Your task to perform on an android device: Go to notification settings Image 0: 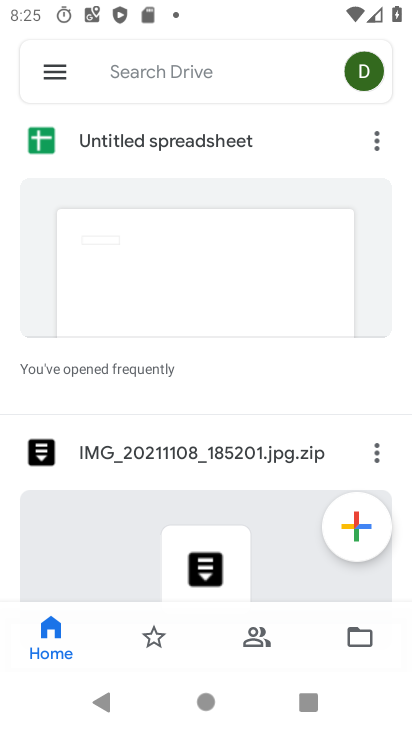
Step 0: press home button
Your task to perform on an android device: Go to notification settings Image 1: 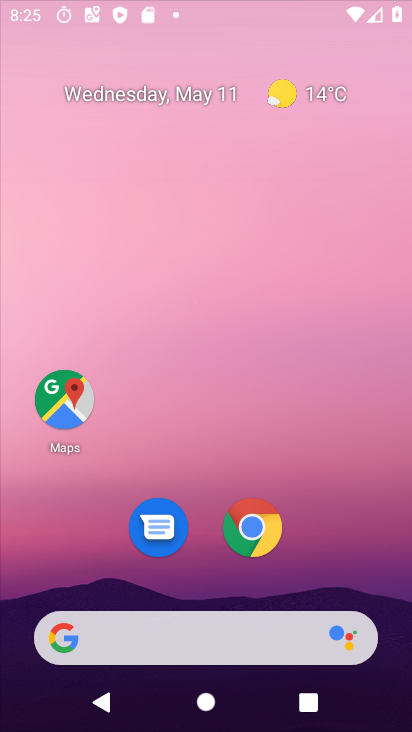
Step 1: drag from (222, 628) to (229, 313)
Your task to perform on an android device: Go to notification settings Image 2: 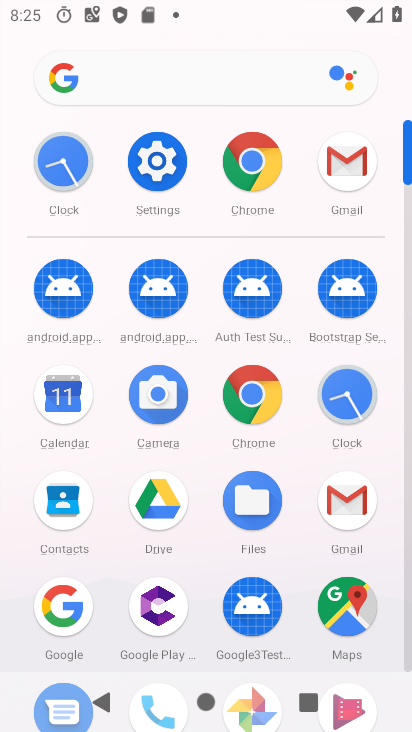
Step 2: click (171, 183)
Your task to perform on an android device: Go to notification settings Image 3: 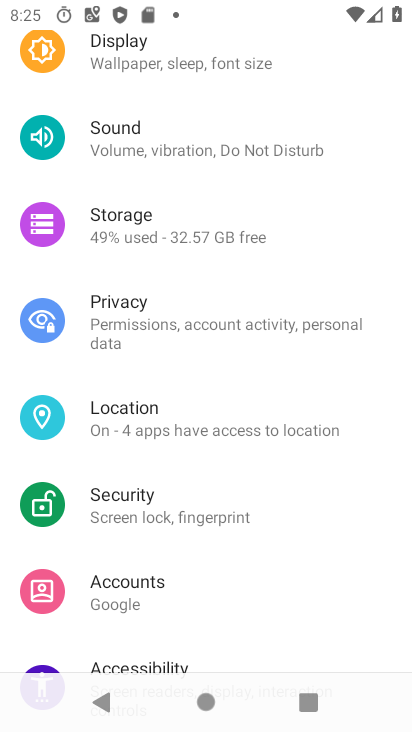
Step 3: drag from (162, 504) to (161, 345)
Your task to perform on an android device: Go to notification settings Image 4: 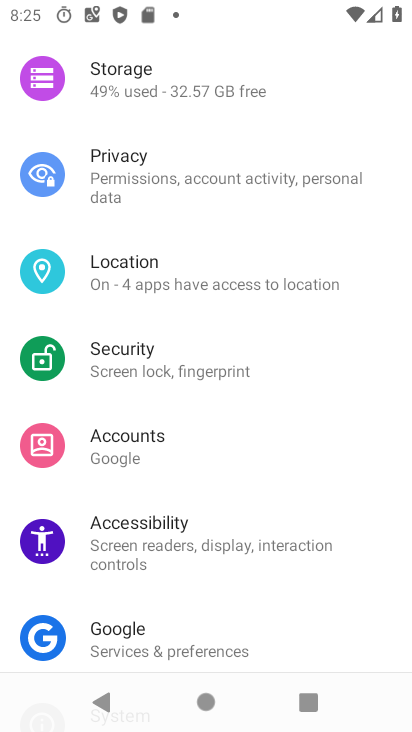
Step 4: drag from (197, 205) to (189, 627)
Your task to perform on an android device: Go to notification settings Image 5: 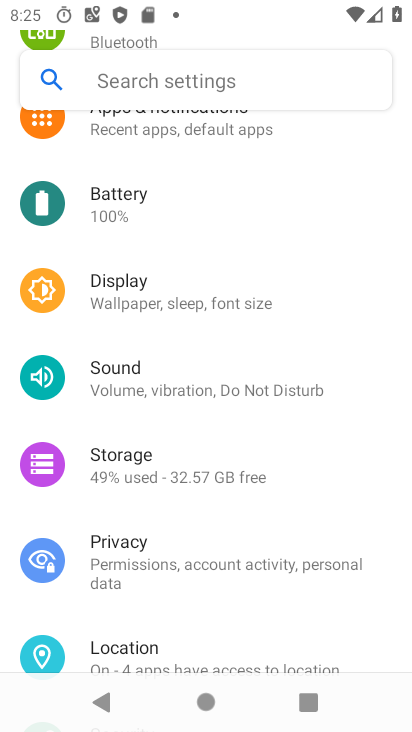
Step 5: drag from (195, 278) to (195, 662)
Your task to perform on an android device: Go to notification settings Image 6: 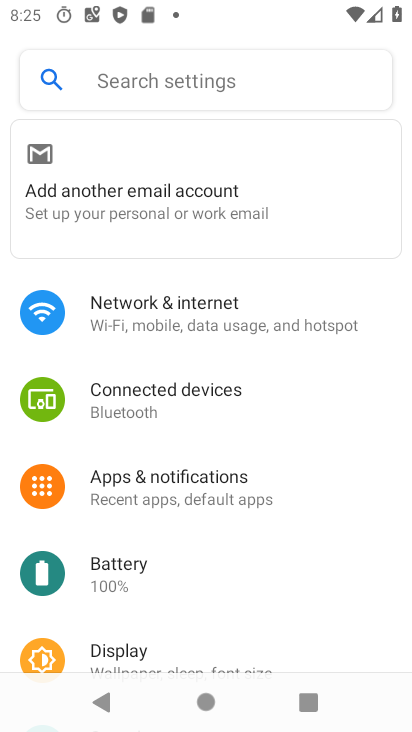
Step 6: click (204, 497)
Your task to perform on an android device: Go to notification settings Image 7: 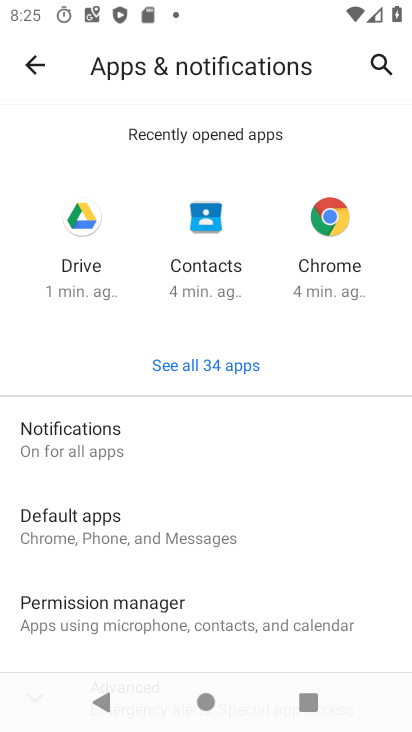
Step 7: click (211, 431)
Your task to perform on an android device: Go to notification settings Image 8: 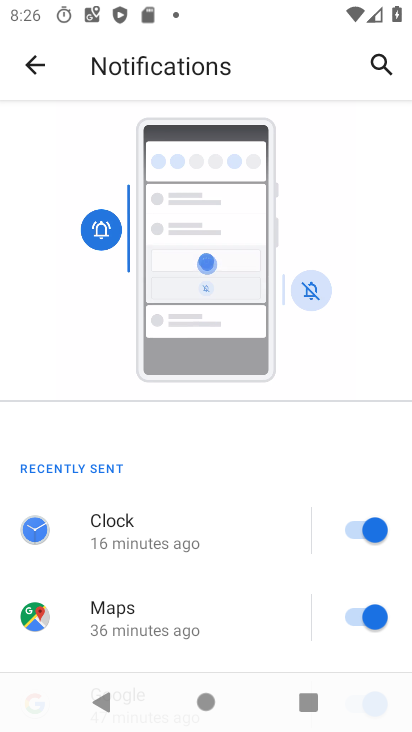
Step 8: task complete